Your task to perform on an android device: turn off picture-in-picture Image 0: 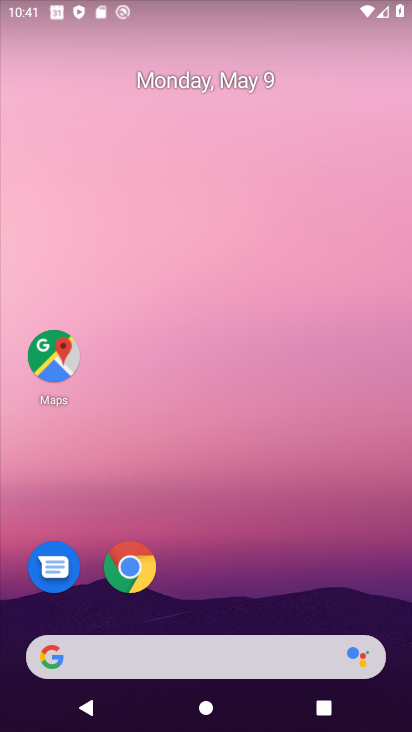
Step 0: drag from (372, 604) to (267, 57)
Your task to perform on an android device: turn off picture-in-picture Image 1: 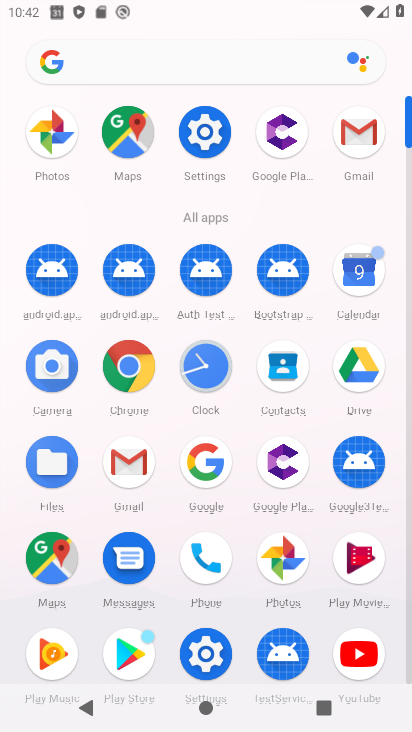
Step 1: click (133, 351)
Your task to perform on an android device: turn off picture-in-picture Image 2: 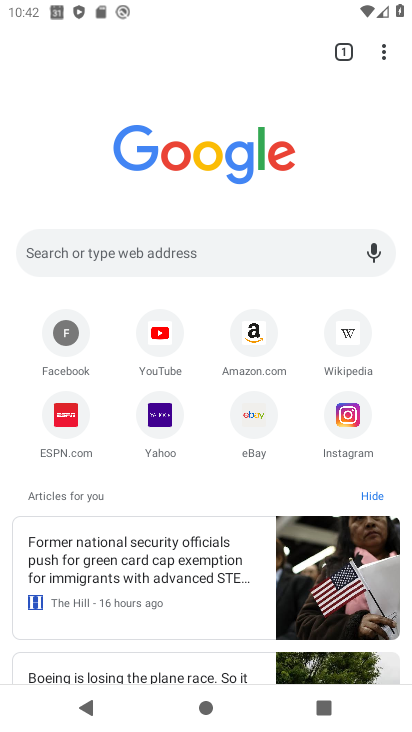
Step 2: task complete